Your task to perform on an android device: empty trash in the gmail app Image 0: 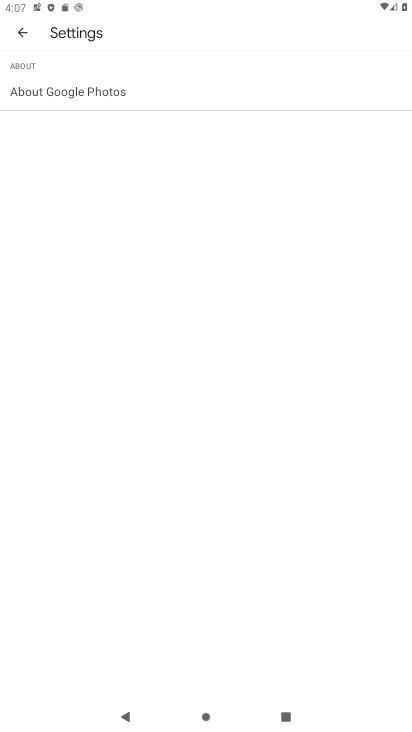
Step 0: press home button
Your task to perform on an android device: empty trash in the gmail app Image 1: 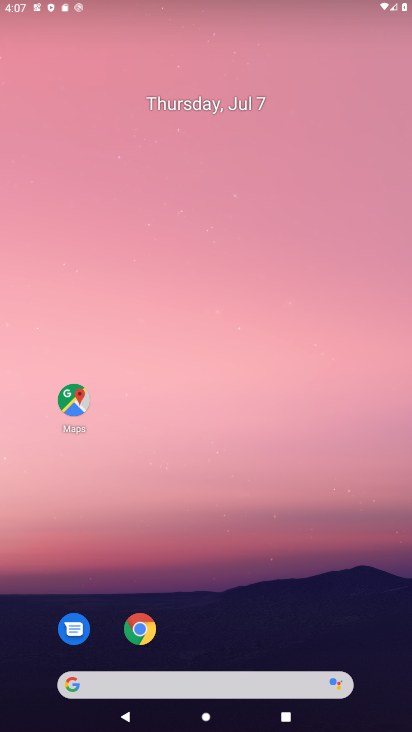
Step 1: drag from (248, 674) to (245, 306)
Your task to perform on an android device: empty trash in the gmail app Image 2: 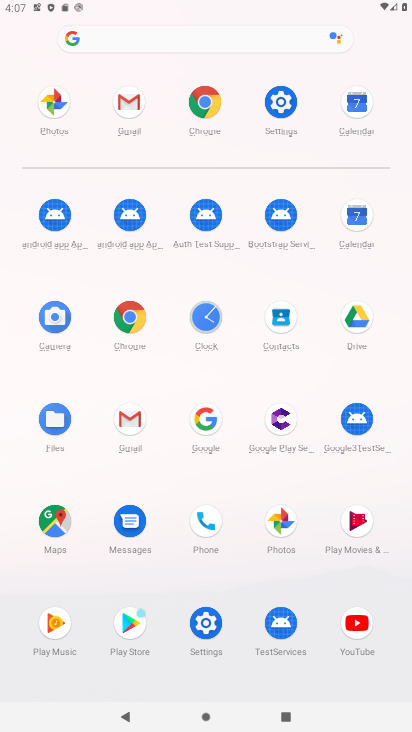
Step 2: click (111, 93)
Your task to perform on an android device: empty trash in the gmail app Image 3: 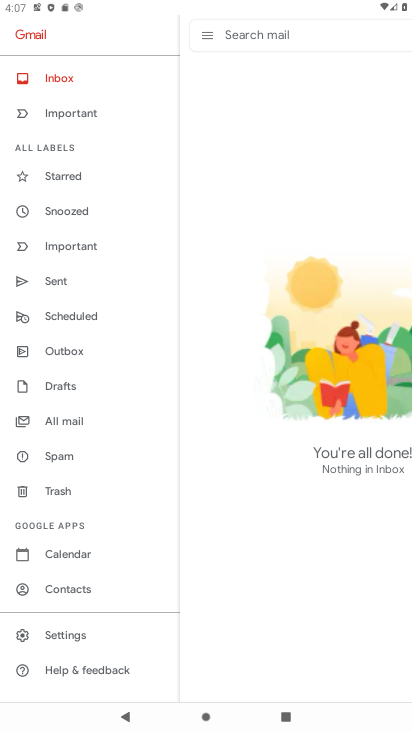
Step 3: click (68, 487)
Your task to perform on an android device: empty trash in the gmail app Image 4: 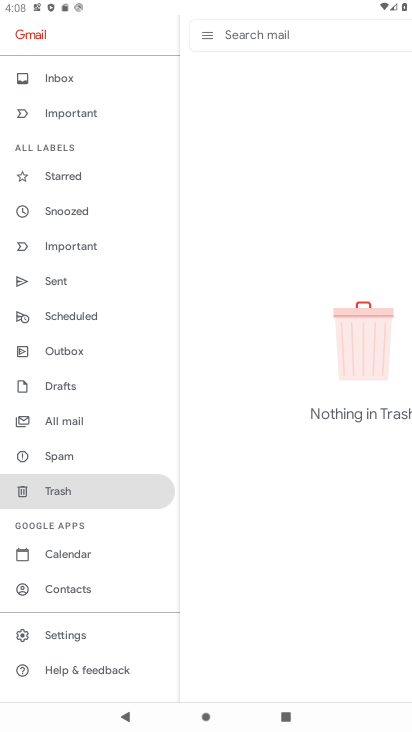
Step 4: task complete